Your task to perform on an android device: Open notification settings Image 0: 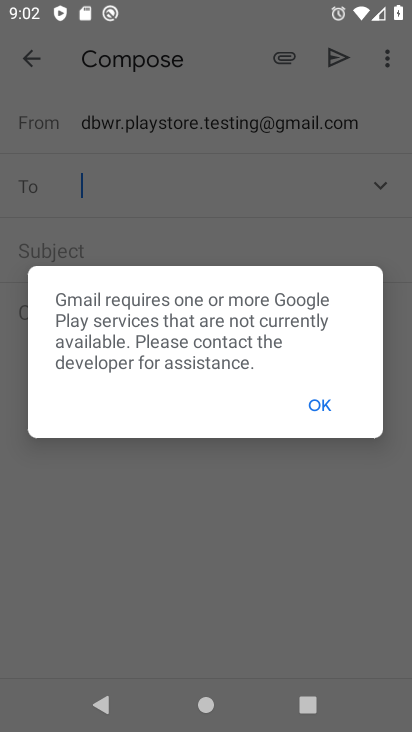
Step 0: click (396, 300)
Your task to perform on an android device: Open notification settings Image 1: 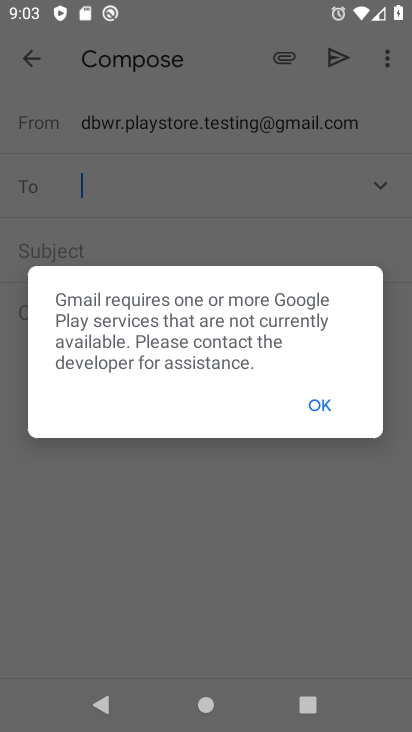
Step 1: click (318, 402)
Your task to perform on an android device: Open notification settings Image 2: 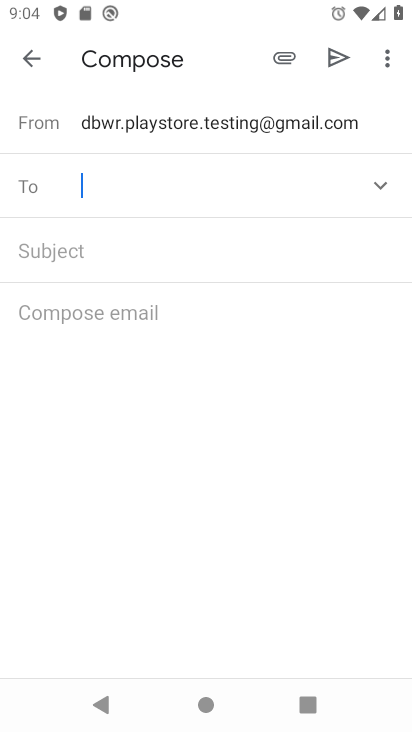
Step 2: click (27, 59)
Your task to perform on an android device: Open notification settings Image 3: 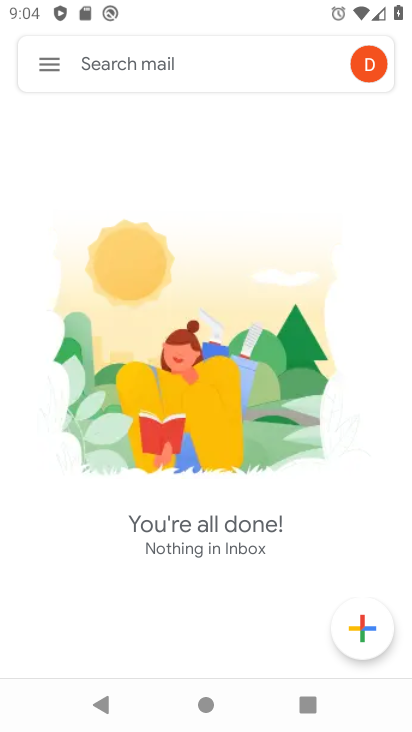
Step 3: press back button
Your task to perform on an android device: Open notification settings Image 4: 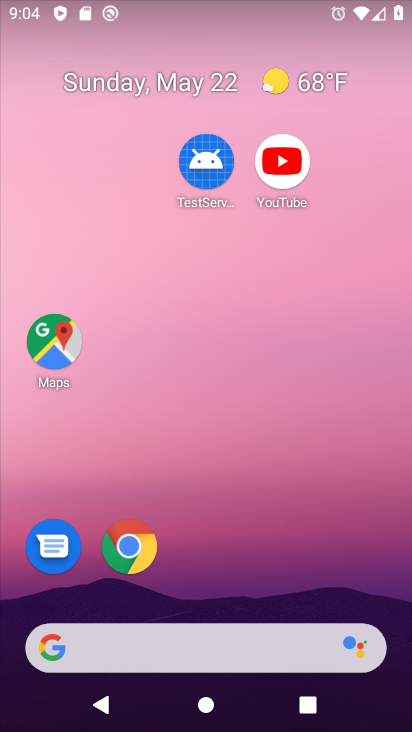
Step 4: drag from (231, 661) to (148, 41)
Your task to perform on an android device: Open notification settings Image 5: 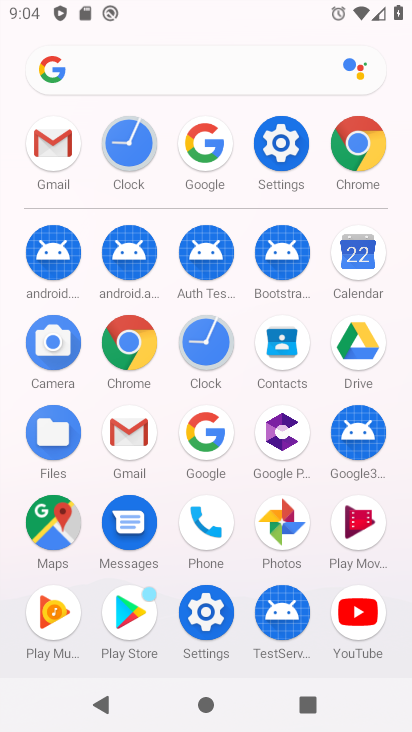
Step 5: click (218, 181)
Your task to perform on an android device: Open notification settings Image 6: 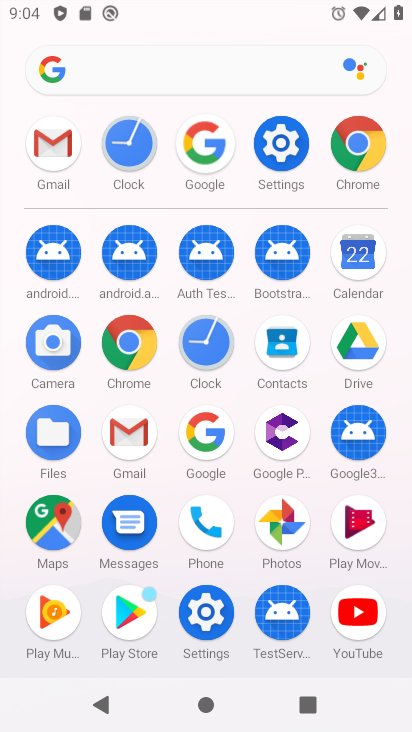
Step 6: click (182, 94)
Your task to perform on an android device: Open notification settings Image 7: 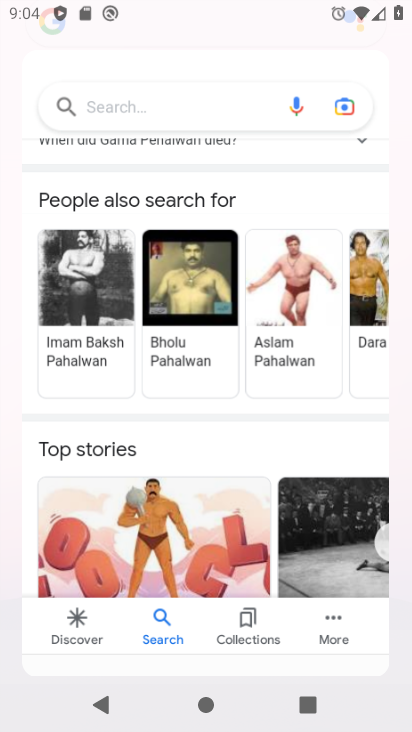
Step 7: drag from (155, 6) to (350, 61)
Your task to perform on an android device: Open notification settings Image 8: 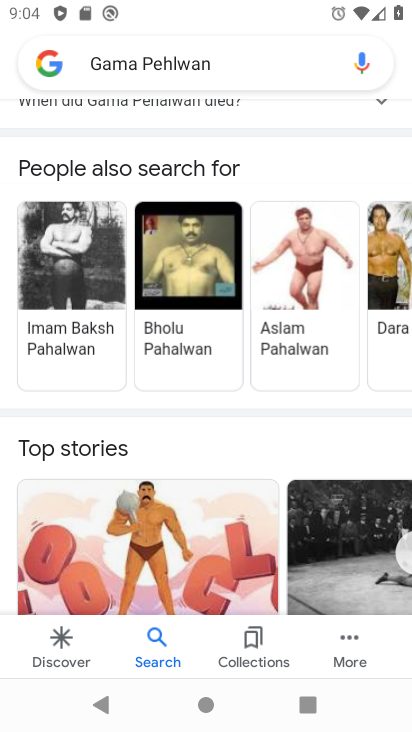
Step 8: drag from (191, 228) to (236, 524)
Your task to perform on an android device: Open notification settings Image 9: 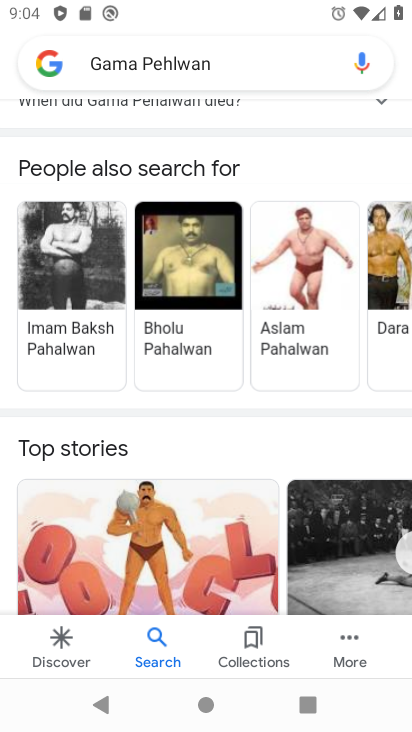
Step 9: drag from (178, 255) to (262, 604)
Your task to perform on an android device: Open notification settings Image 10: 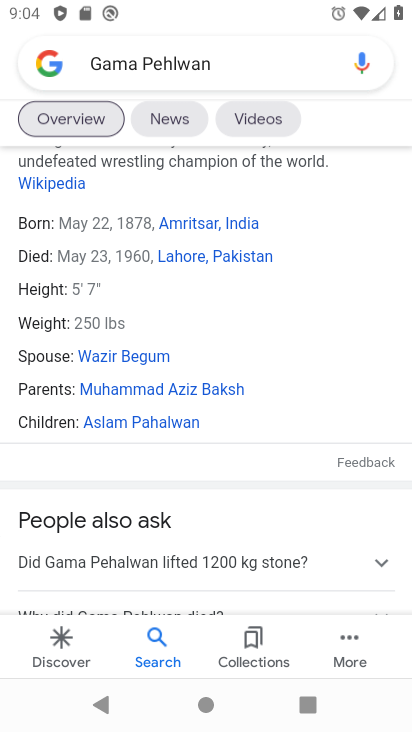
Step 10: press home button
Your task to perform on an android device: Open notification settings Image 11: 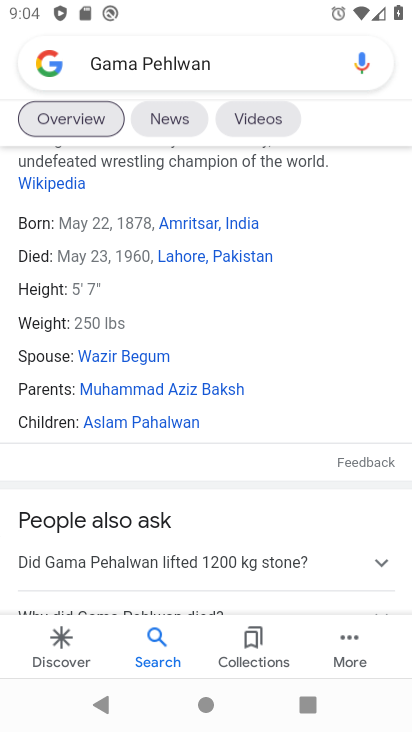
Step 11: press home button
Your task to perform on an android device: Open notification settings Image 12: 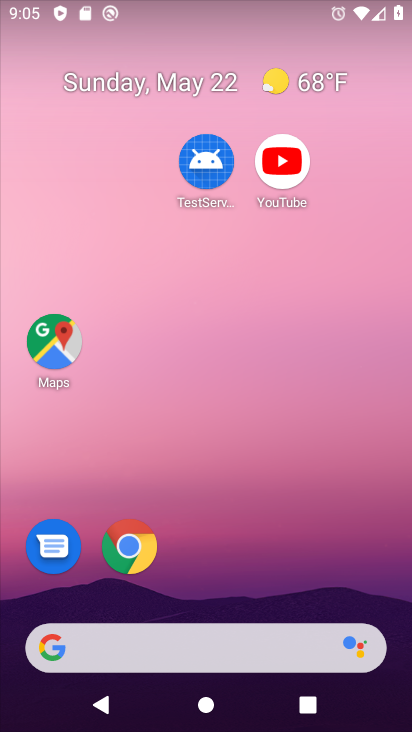
Step 12: drag from (211, 302) to (193, 58)
Your task to perform on an android device: Open notification settings Image 13: 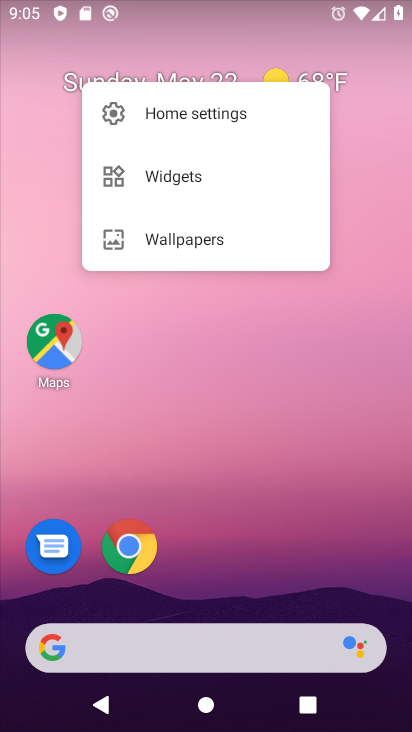
Step 13: drag from (264, 625) to (249, 101)
Your task to perform on an android device: Open notification settings Image 14: 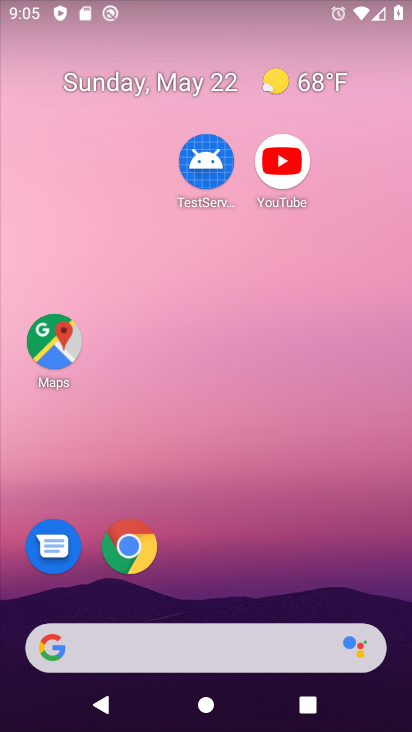
Step 14: drag from (271, 537) to (267, 8)
Your task to perform on an android device: Open notification settings Image 15: 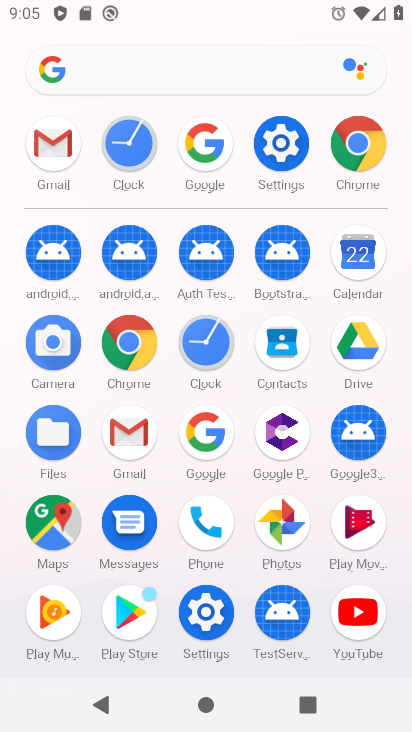
Step 15: drag from (246, 448) to (246, 71)
Your task to perform on an android device: Open notification settings Image 16: 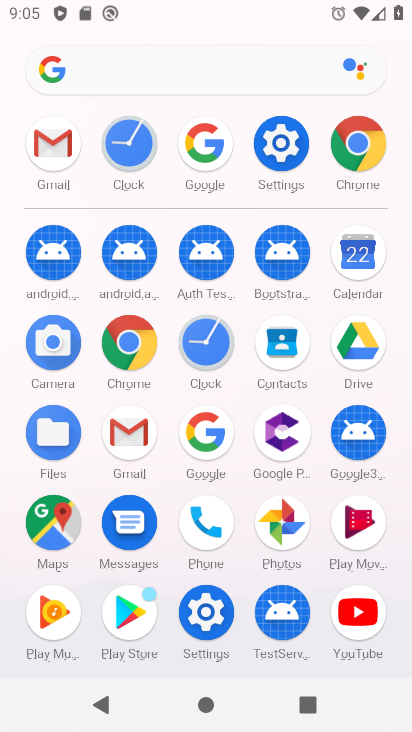
Step 16: drag from (216, 331) to (268, 12)
Your task to perform on an android device: Open notification settings Image 17: 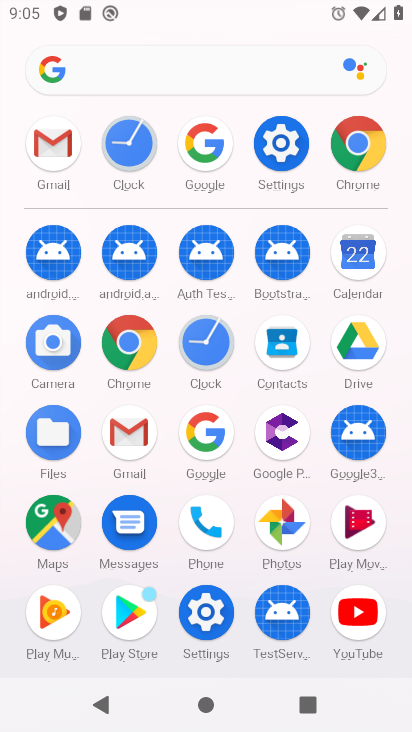
Step 17: drag from (254, 660) to (292, 20)
Your task to perform on an android device: Open notification settings Image 18: 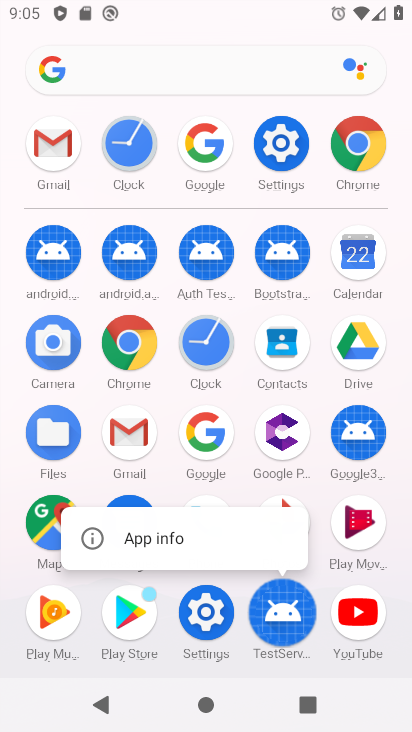
Step 18: click (270, 0)
Your task to perform on an android device: Open notification settings Image 19: 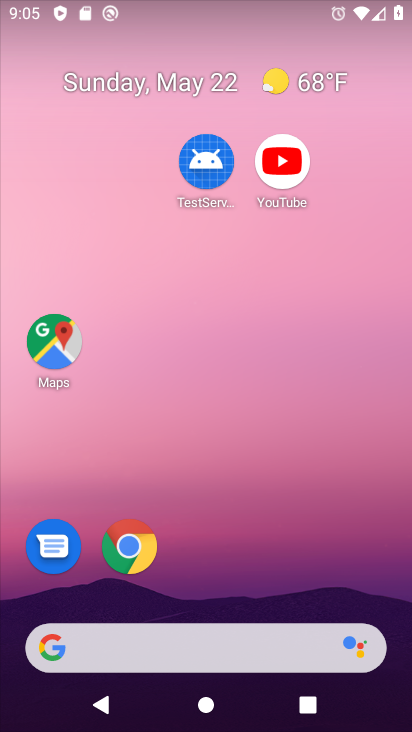
Step 19: drag from (271, 623) to (289, 0)
Your task to perform on an android device: Open notification settings Image 20: 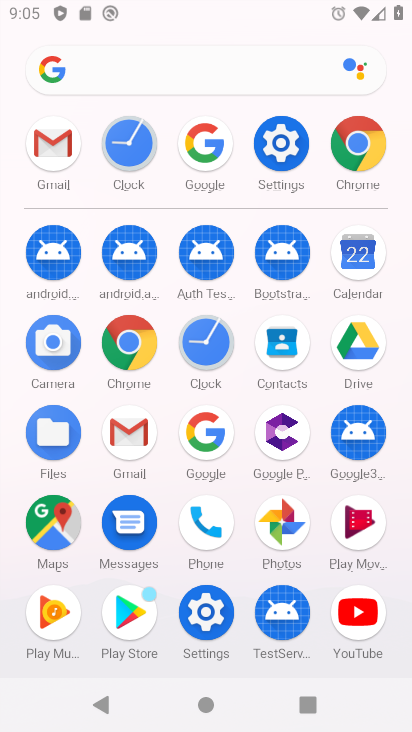
Step 20: drag from (228, 666) to (213, 26)
Your task to perform on an android device: Open notification settings Image 21: 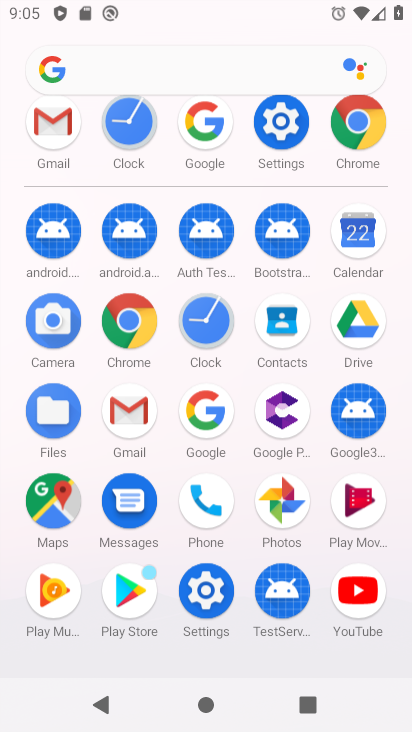
Step 21: drag from (233, 413) to (279, 0)
Your task to perform on an android device: Open notification settings Image 22: 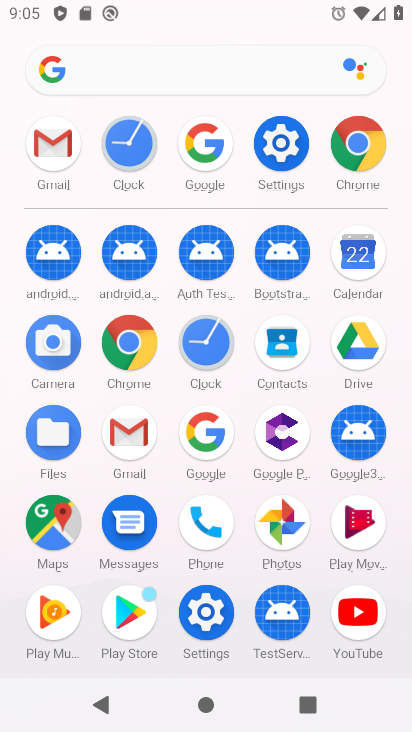
Step 22: click (279, 127)
Your task to perform on an android device: Open notification settings Image 23: 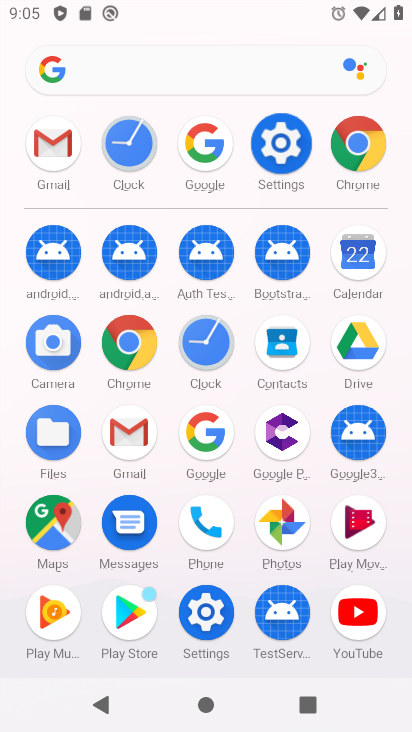
Step 23: click (279, 127)
Your task to perform on an android device: Open notification settings Image 24: 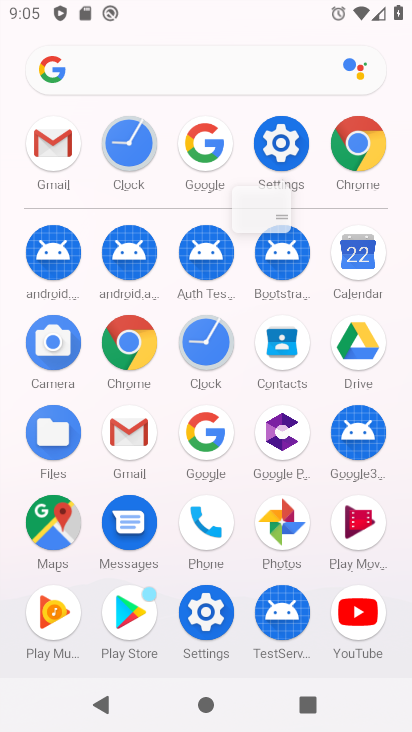
Step 24: click (281, 124)
Your task to perform on an android device: Open notification settings Image 25: 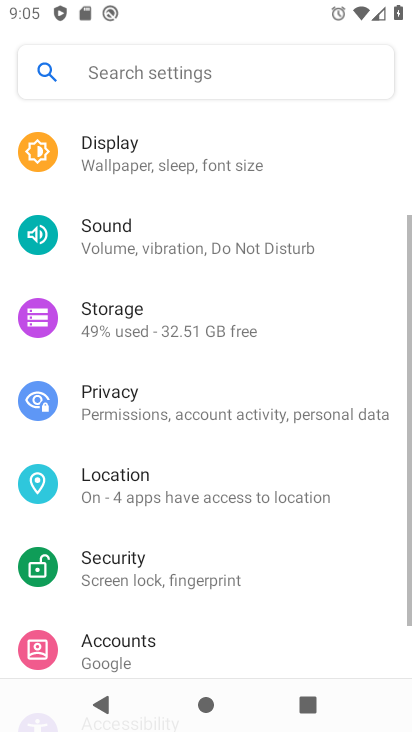
Step 25: click (284, 121)
Your task to perform on an android device: Open notification settings Image 26: 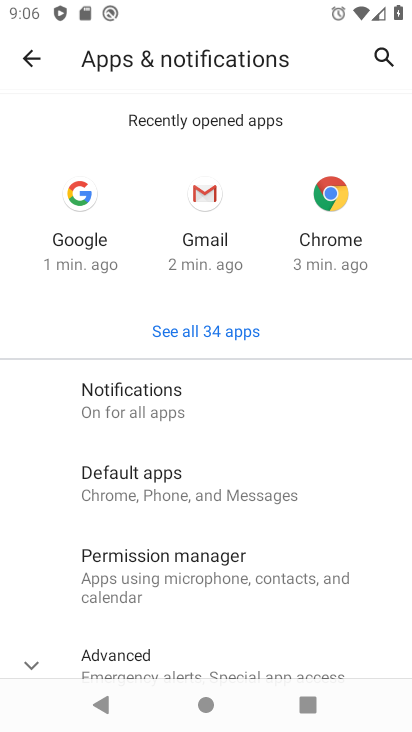
Step 26: click (103, 411)
Your task to perform on an android device: Open notification settings Image 27: 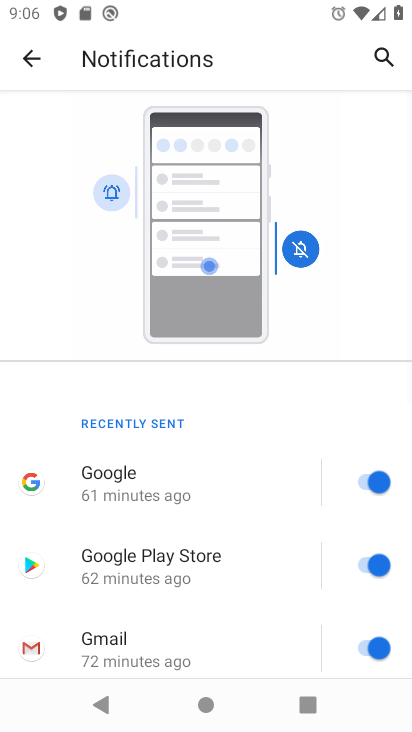
Step 27: task complete